Your task to perform on an android device: change the clock display to digital Image 0: 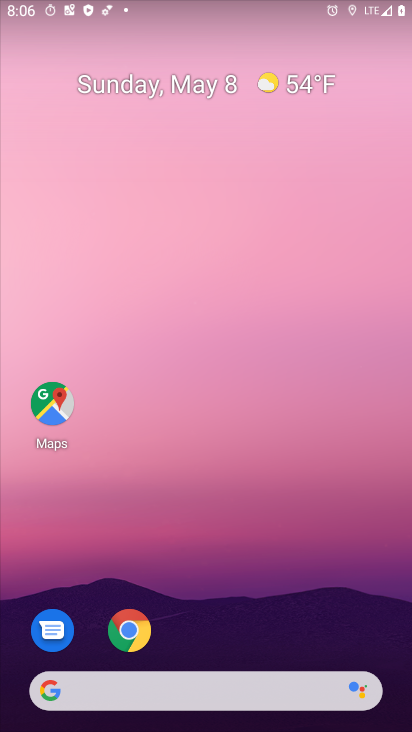
Step 0: drag from (233, 669) to (203, 35)
Your task to perform on an android device: change the clock display to digital Image 1: 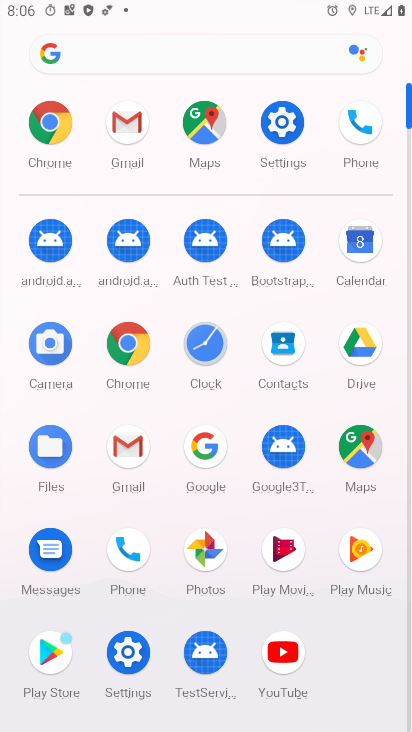
Step 1: click (208, 357)
Your task to perform on an android device: change the clock display to digital Image 2: 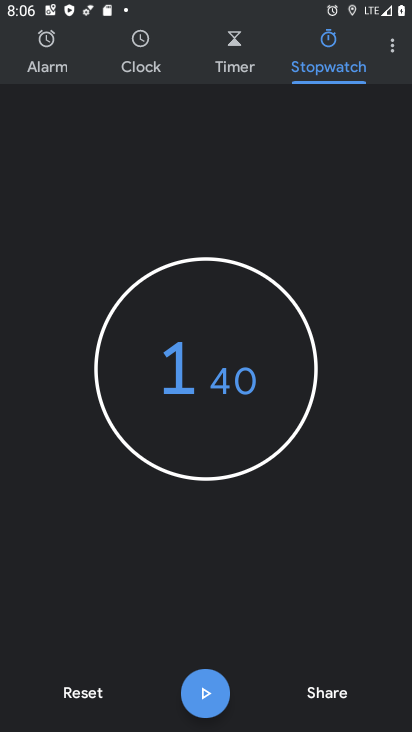
Step 2: click (386, 45)
Your task to perform on an android device: change the clock display to digital Image 3: 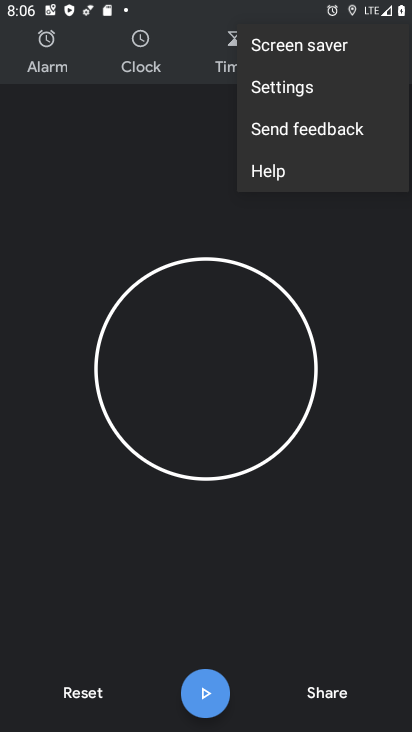
Step 3: click (299, 86)
Your task to perform on an android device: change the clock display to digital Image 4: 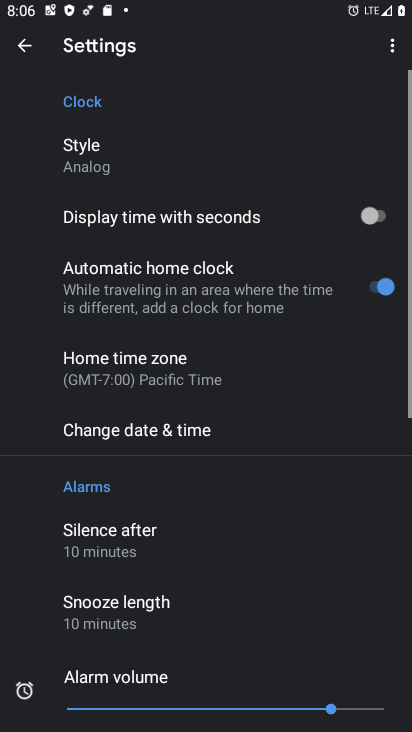
Step 4: click (109, 162)
Your task to perform on an android device: change the clock display to digital Image 5: 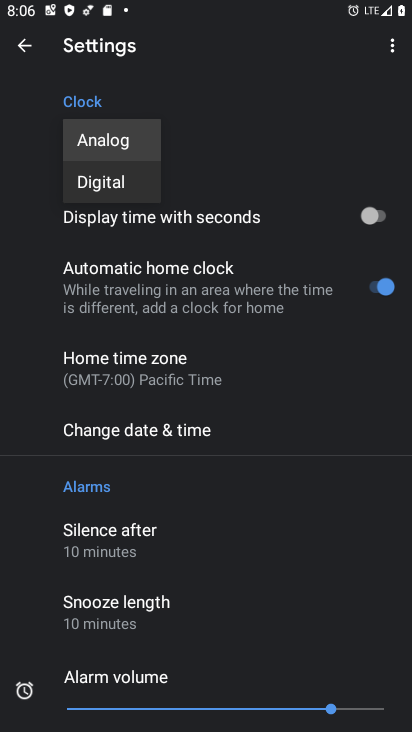
Step 5: click (111, 177)
Your task to perform on an android device: change the clock display to digital Image 6: 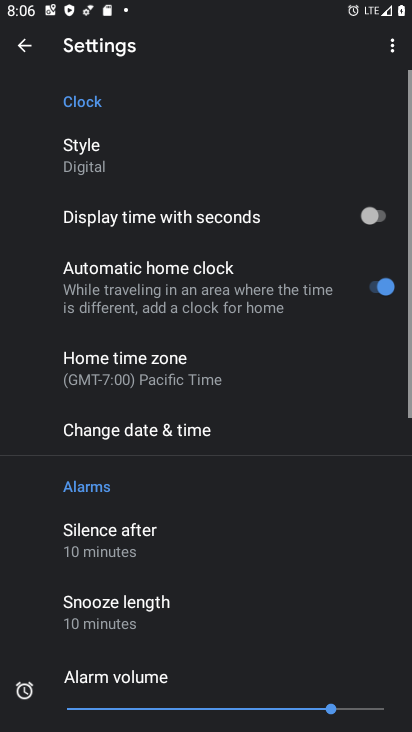
Step 6: task complete